Your task to perform on an android device: change alarm snooze length Image 0: 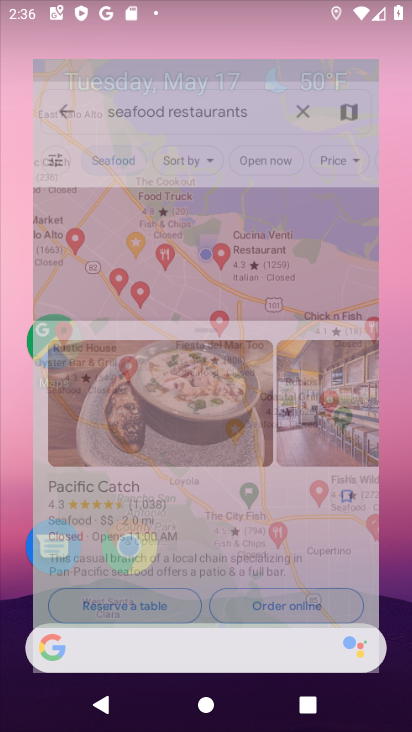
Step 0: click (124, 563)
Your task to perform on an android device: change alarm snooze length Image 1: 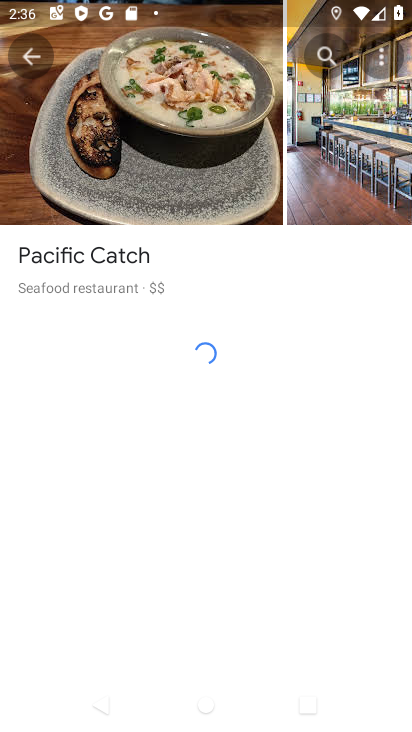
Step 1: press home button
Your task to perform on an android device: change alarm snooze length Image 2: 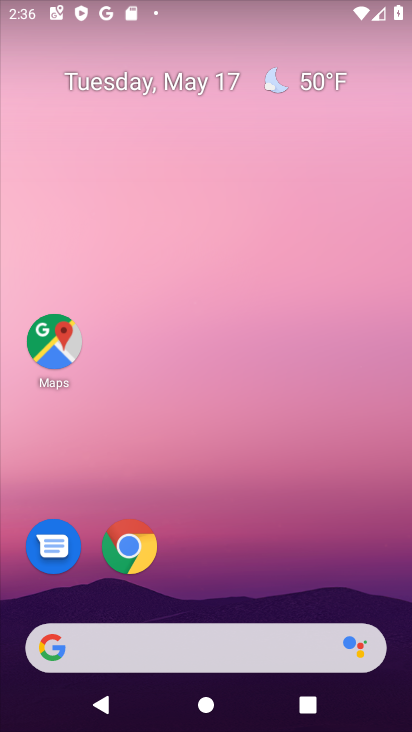
Step 2: drag from (175, 592) to (199, 36)
Your task to perform on an android device: change alarm snooze length Image 3: 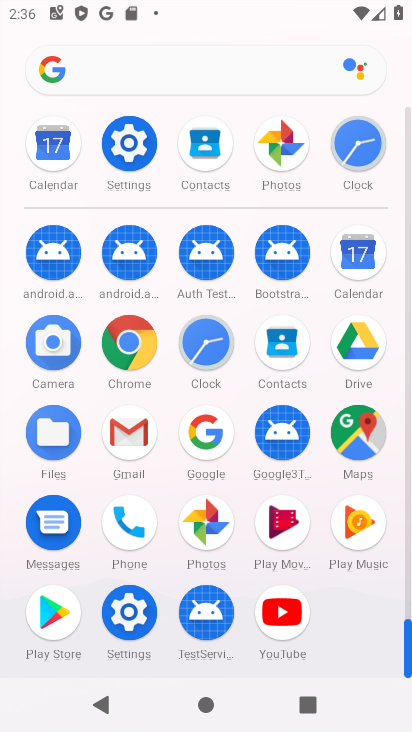
Step 3: click (214, 352)
Your task to perform on an android device: change alarm snooze length Image 4: 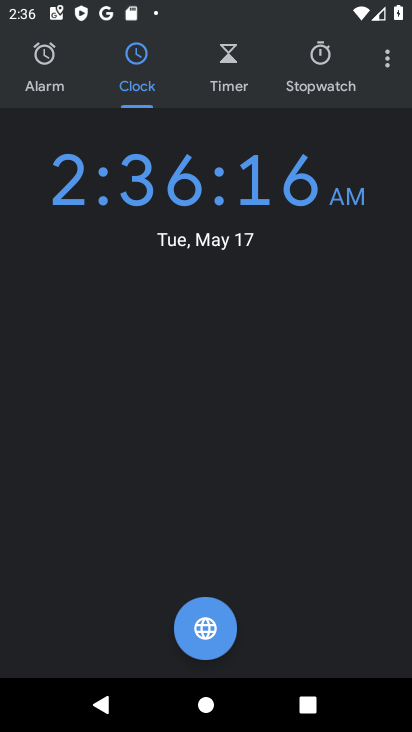
Step 4: click (390, 64)
Your task to perform on an android device: change alarm snooze length Image 5: 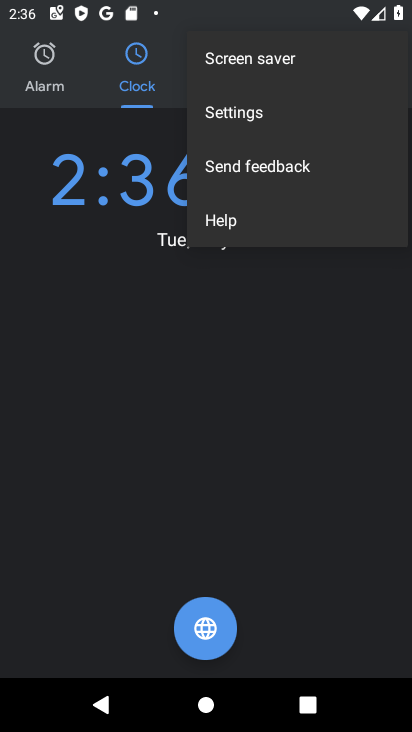
Step 5: click (242, 121)
Your task to perform on an android device: change alarm snooze length Image 6: 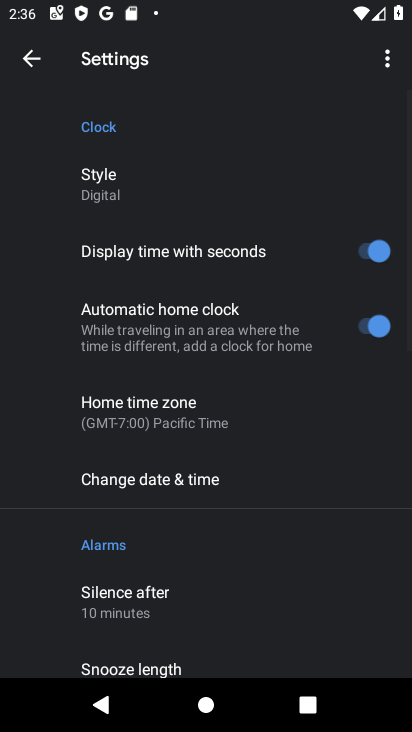
Step 6: drag from (152, 505) to (176, 213)
Your task to perform on an android device: change alarm snooze length Image 7: 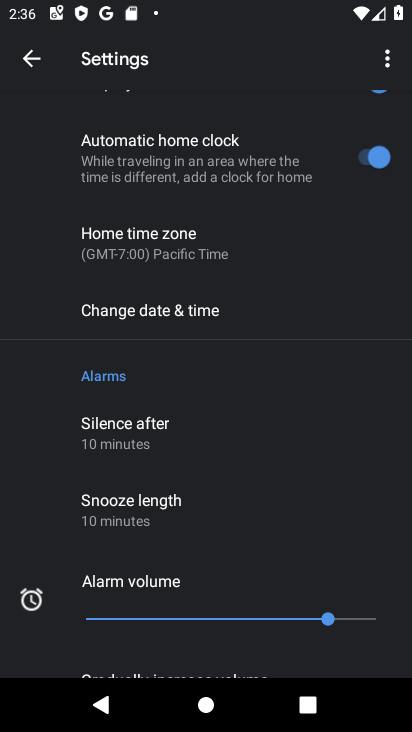
Step 7: click (160, 505)
Your task to perform on an android device: change alarm snooze length Image 8: 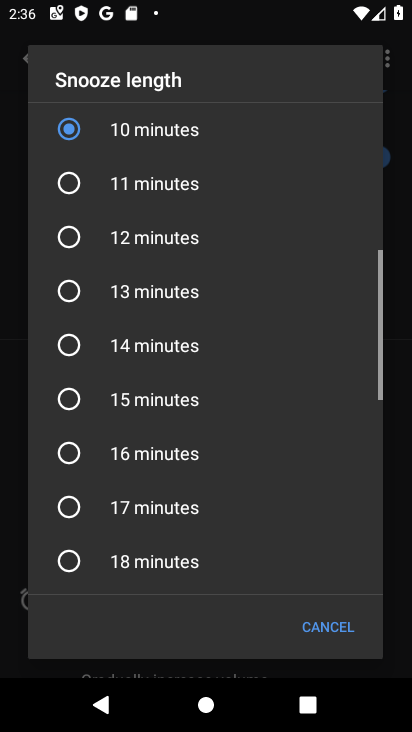
Step 8: click (105, 389)
Your task to perform on an android device: change alarm snooze length Image 9: 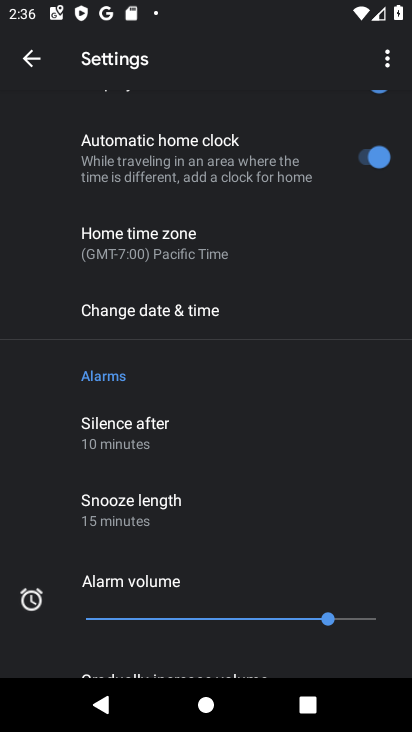
Step 9: task complete